Your task to perform on an android device: open app "Nova Launcher" (install if not already installed) and enter user name: "haggard@gmail.com" and password: "sadder" Image 0: 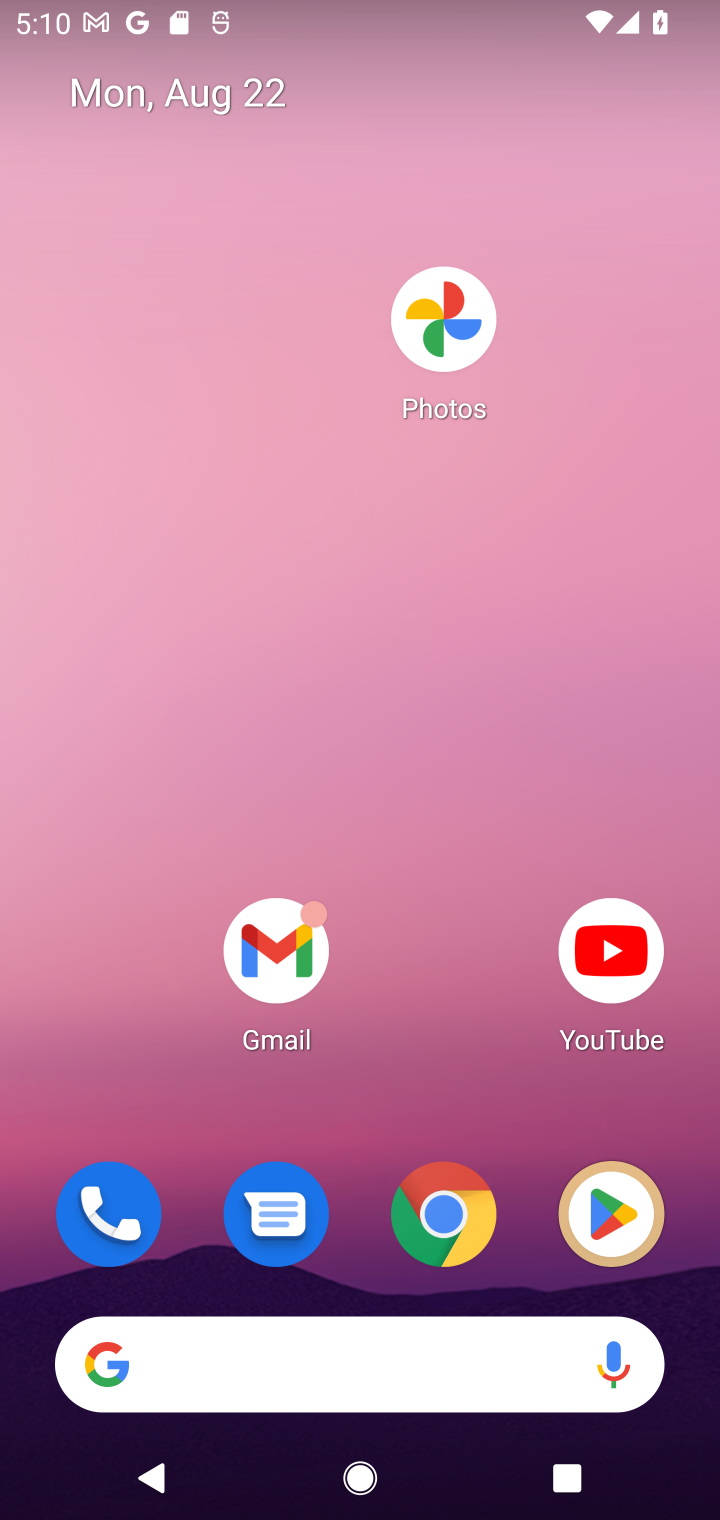
Step 0: click (610, 1217)
Your task to perform on an android device: open app "Nova Launcher" (install if not already installed) and enter user name: "haggard@gmail.com" and password: "sadder" Image 1: 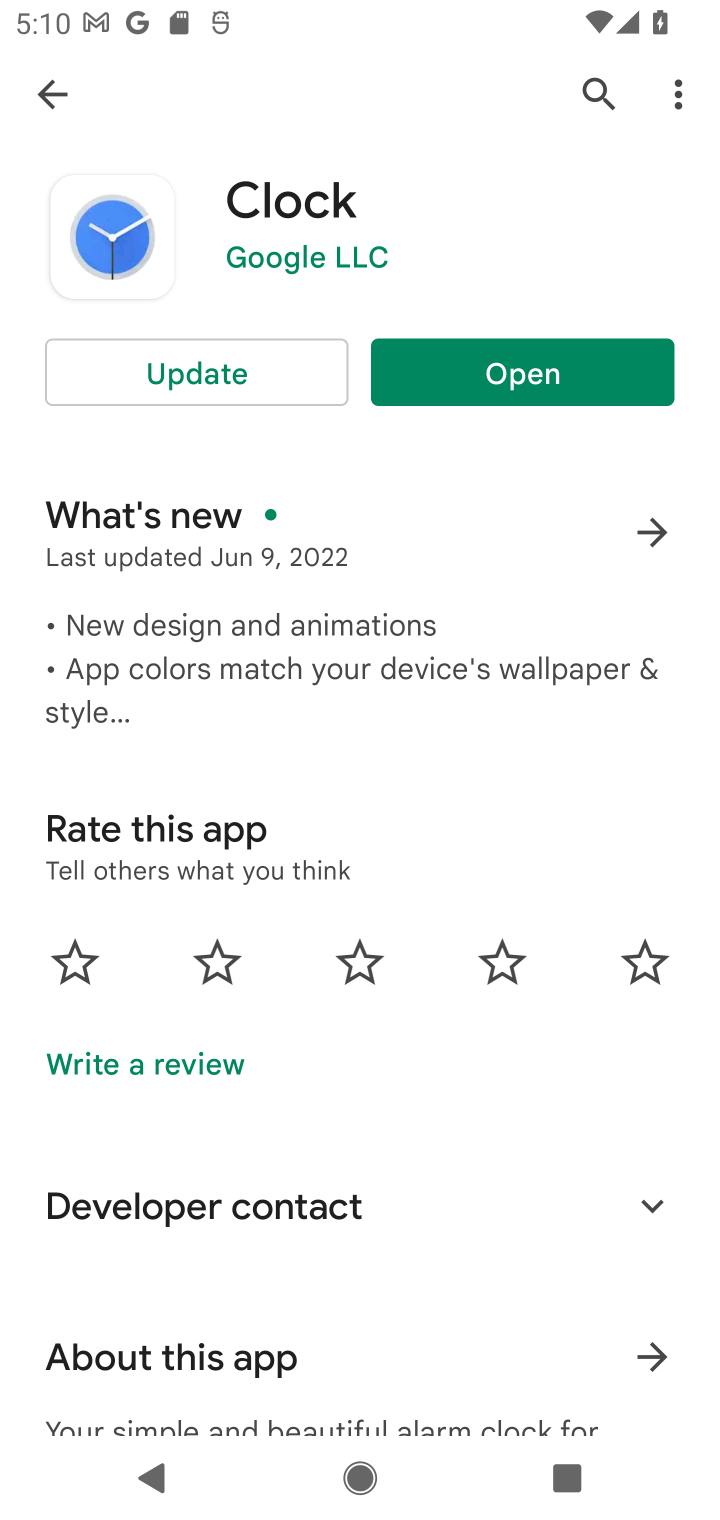
Step 1: click (591, 86)
Your task to perform on an android device: open app "Nova Launcher" (install if not already installed) and enter user name: "haggard@gmail.com" and password: "sadder" Image 2: 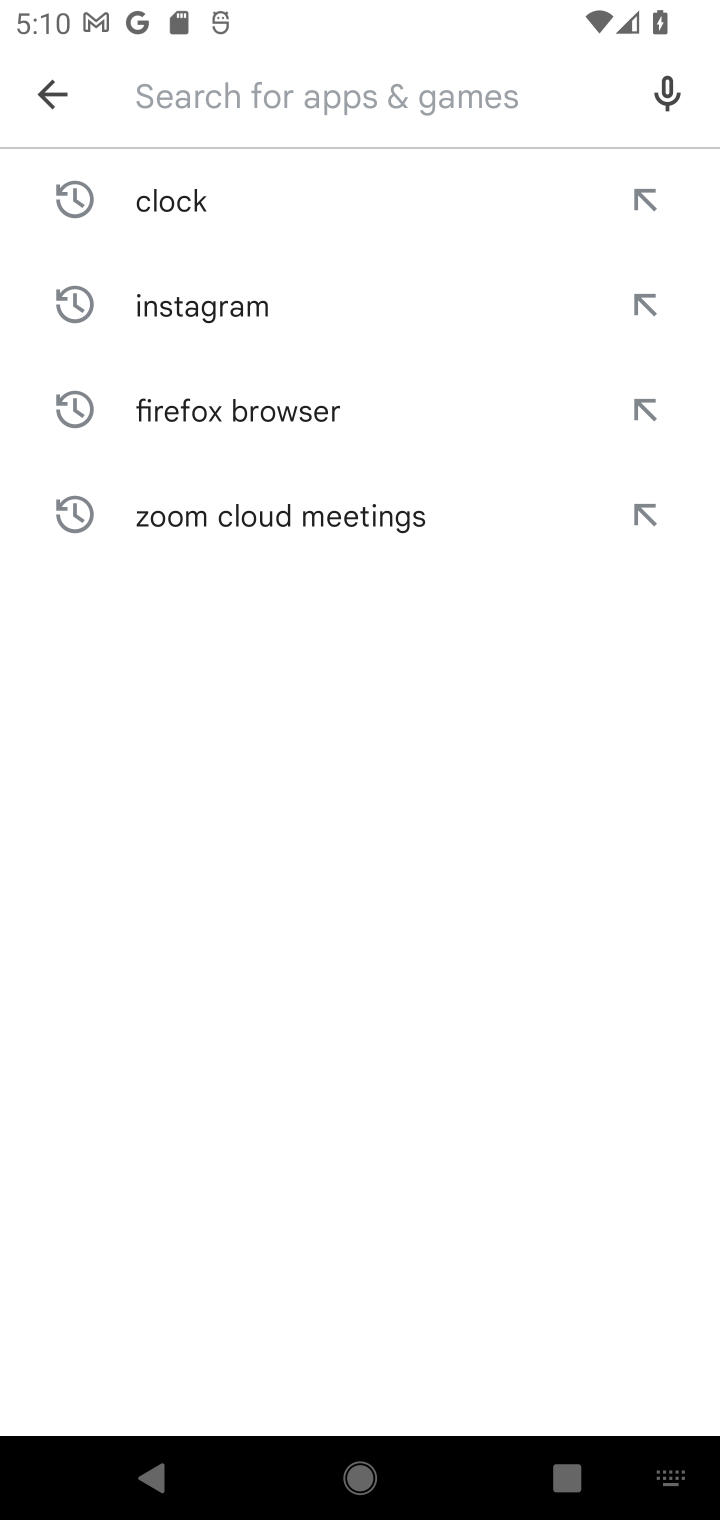
Step 2: type "Nova Launcher"
Your task to perform on an android device: open app "Nova Launcher" (install if not already installed) and enter user name: "haggard@gmail.com" and password: "sadder" Image 3: 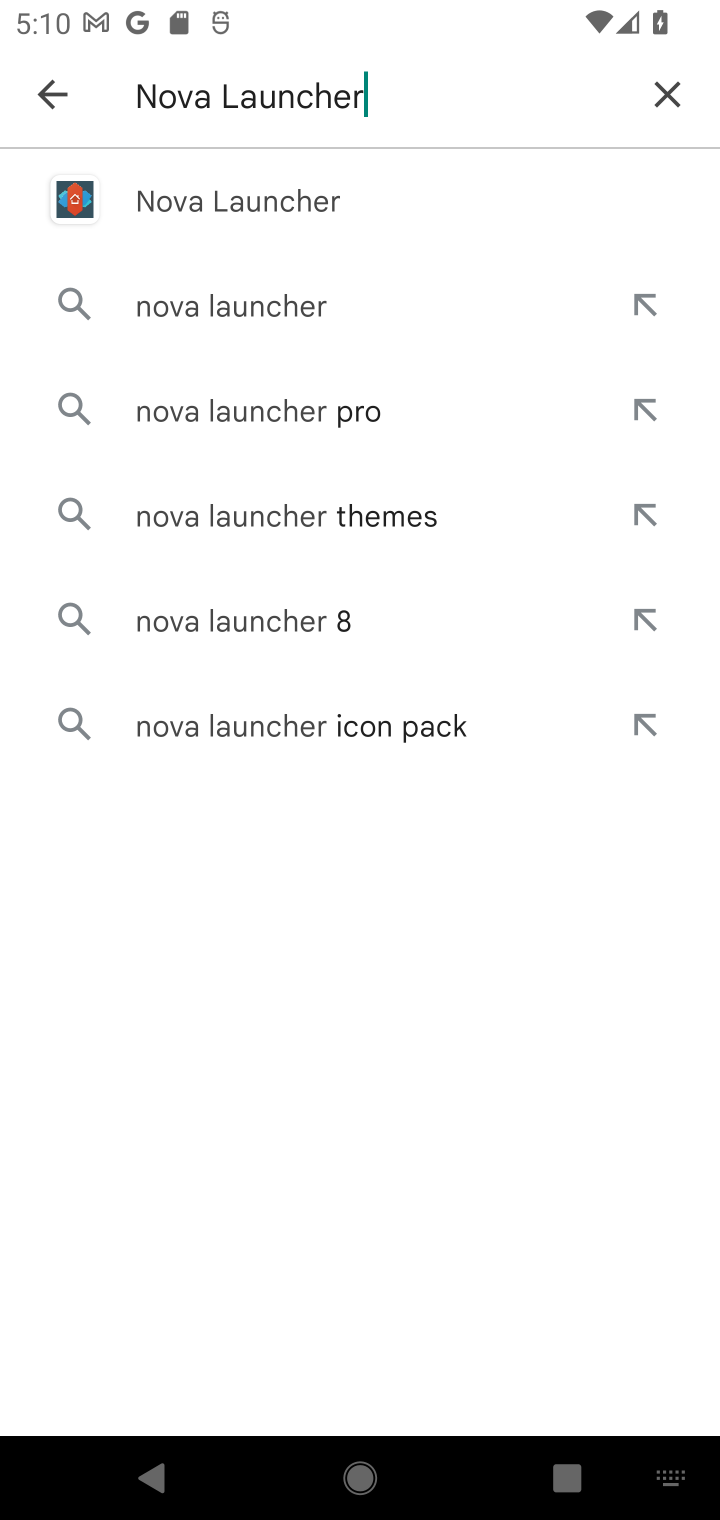
Step 3: click (190, 202)
Your task to perform on an android device: open app "Nova Launcher" (install if not already installed) and enter user name: "haggard@gmail.com" and password: "sadder" Image 4: 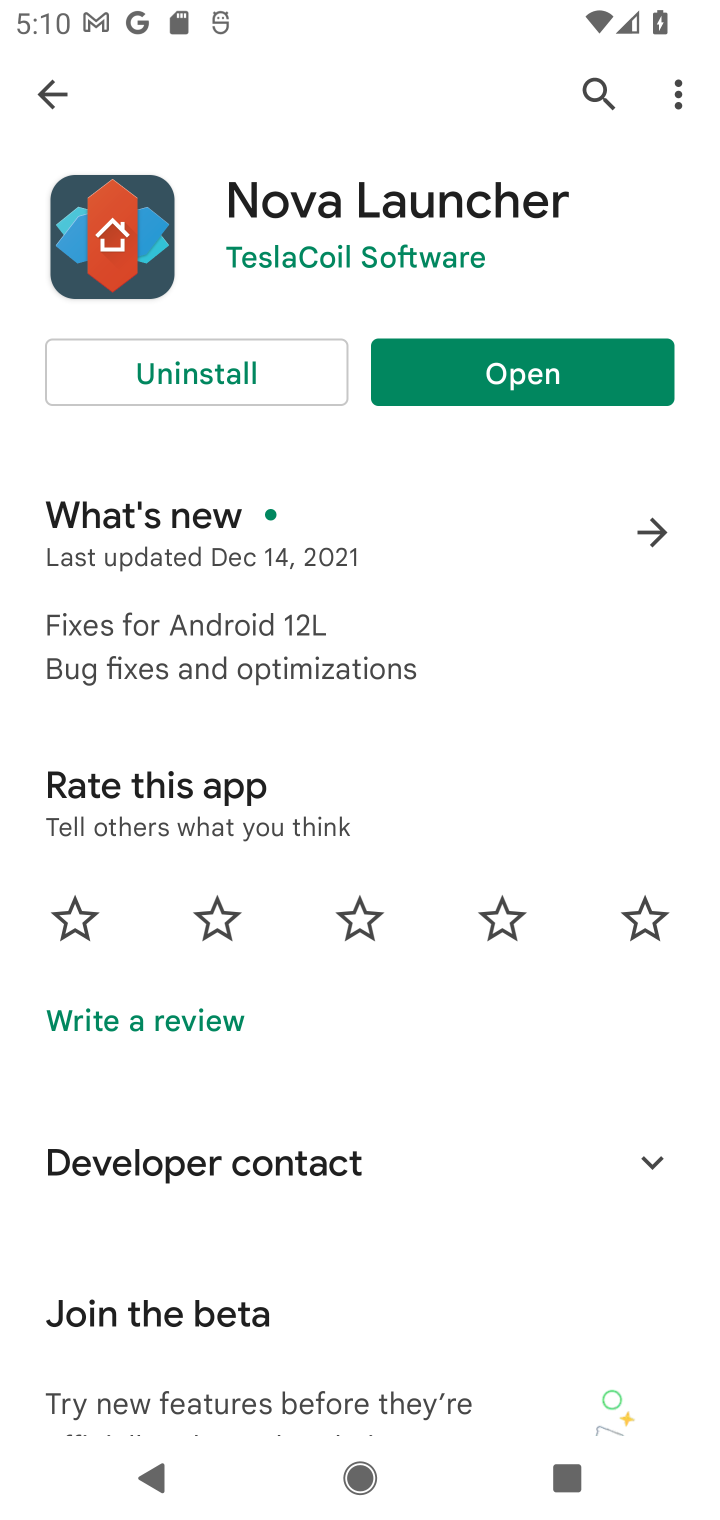
Step 4: click (498, 383)
Your task to perform on an android device: open app "Nova Launcher" (install if not already installed) and enter user name: "haggard@gmail.com" and password: "sadder" Image 5: 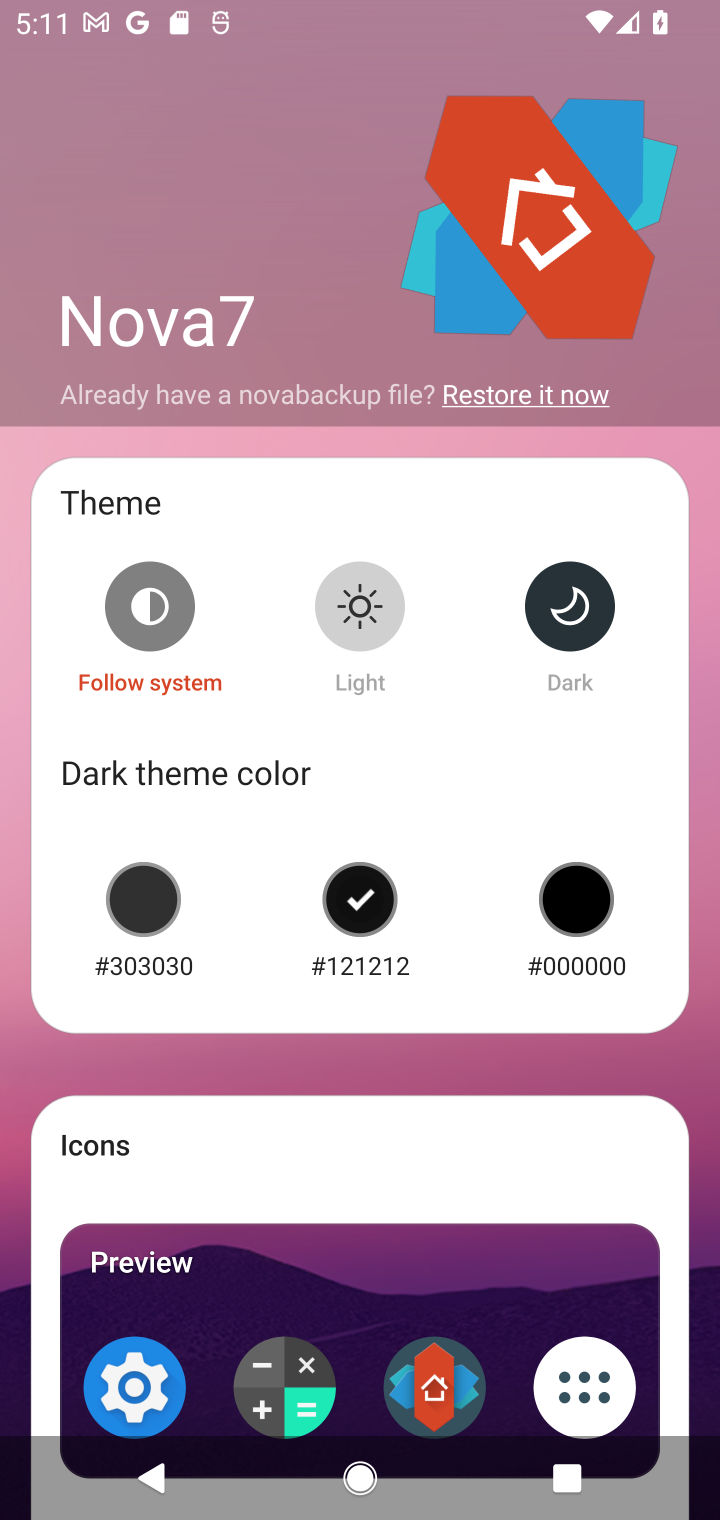
Step 5: task complete